Your task to perform on an android device: set the stopwatch Image 0: 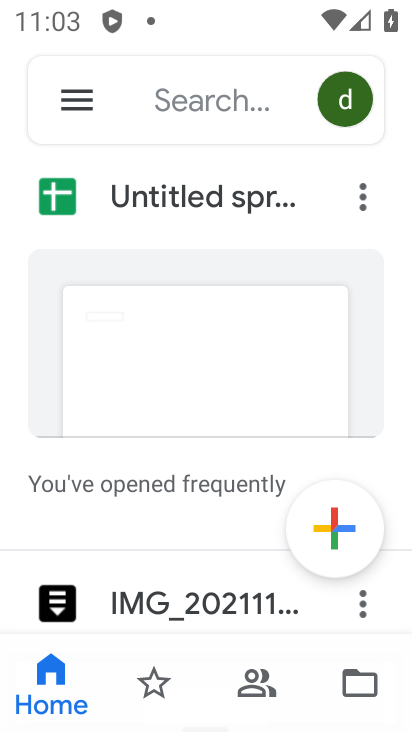
Step 0: press home button
Your task to perform on an android device: set the stopwatch Image 1: 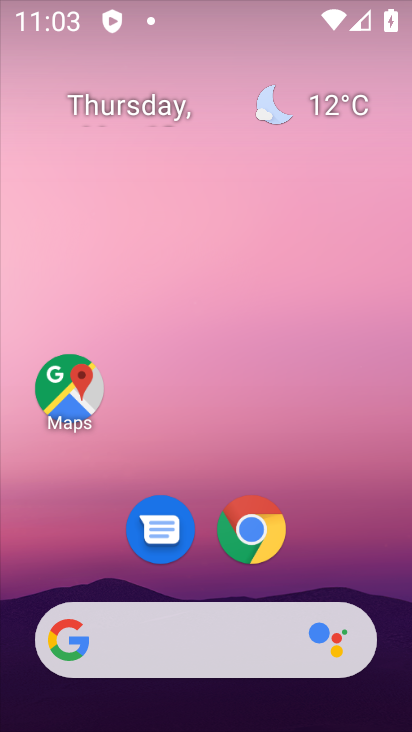
Step 1: drag from (219, 578) to (223, 283)
Your task to perform on an android device: set the stopwatch Image 2: 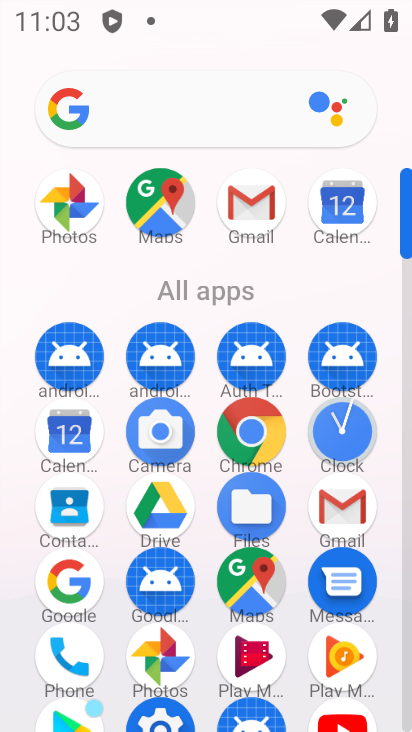
Step 2: click (332, 428)
Your task to perform on an android device: set the stopwatch Image 3: 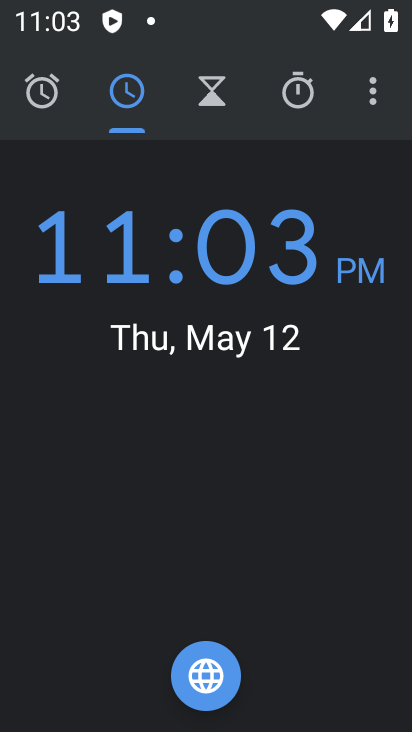
Step 3: click (376, 86)
Your task to perform on an android device: set the stopwatch Image 4: 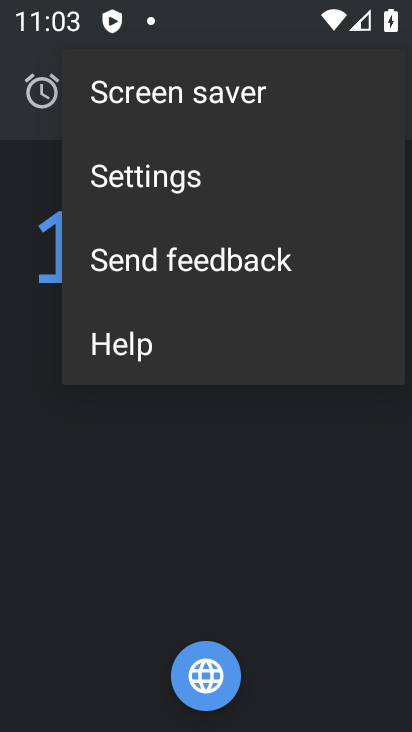
Step 4: click (173, 168)
Your task to perform on an android device: set the stopwatch Image 5: 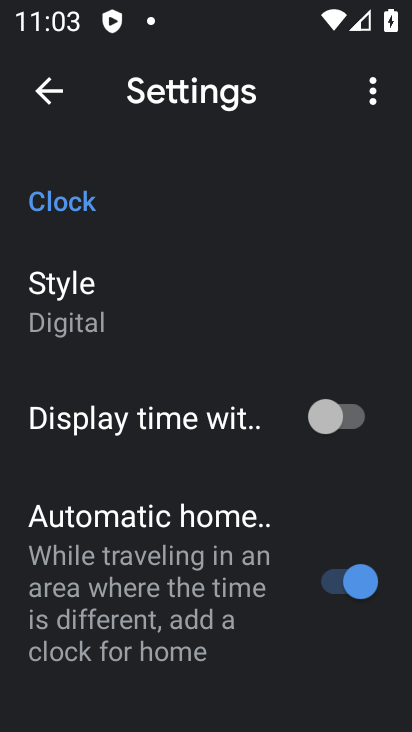
Step 5: click (61, 91)
Your task to perform on an android device: set the stopwatch Image 6: 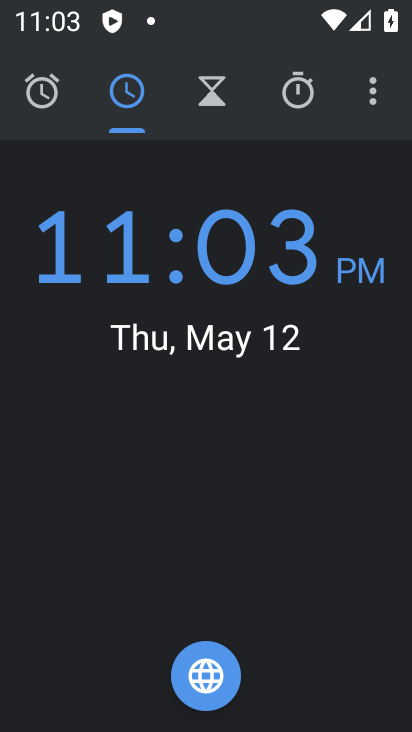
Step 6: click (311, 77)
Your task to perform on an android device: set the stopwatch Image 7: 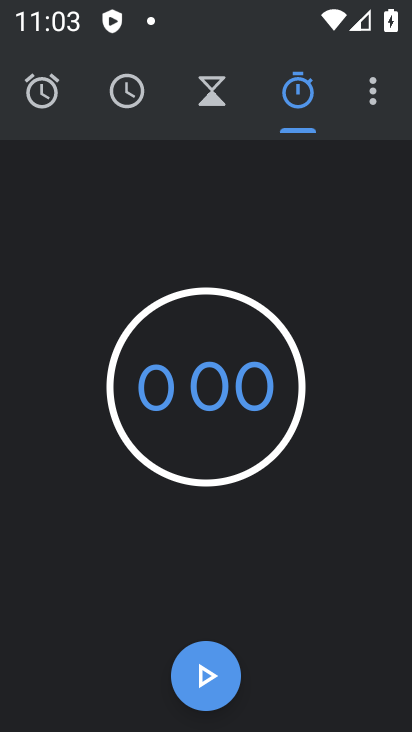
Step 7: task complete